Your task to perform on an android device: turn off location Image 0: 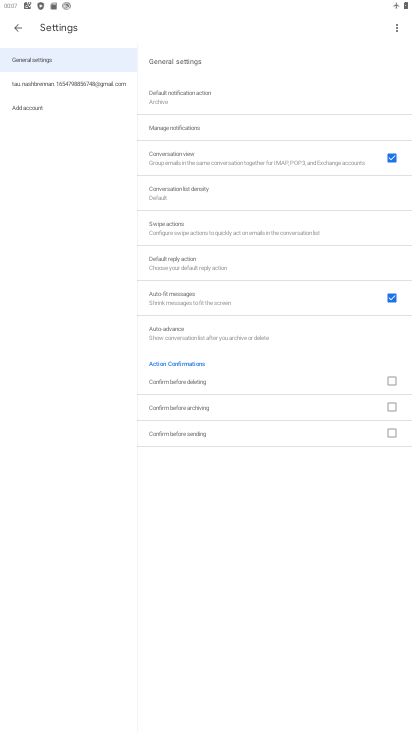
Step 0: press home button
Your task to perform on an android device: turn off location Image 1: 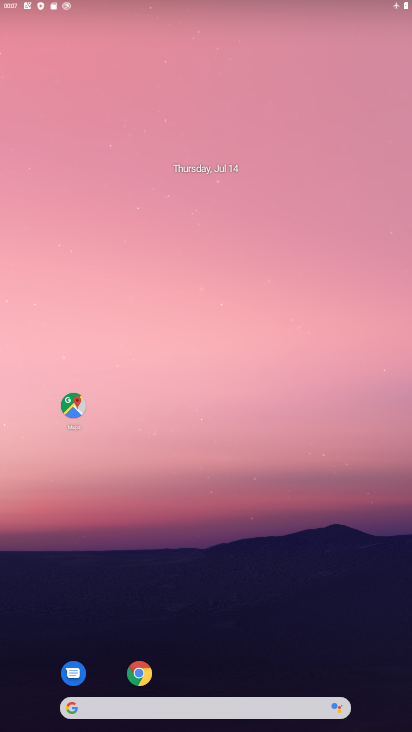
Step 1: drag from (212, 631) to (211, 103)
Your task to perform on an android device: turn off location Image 2: 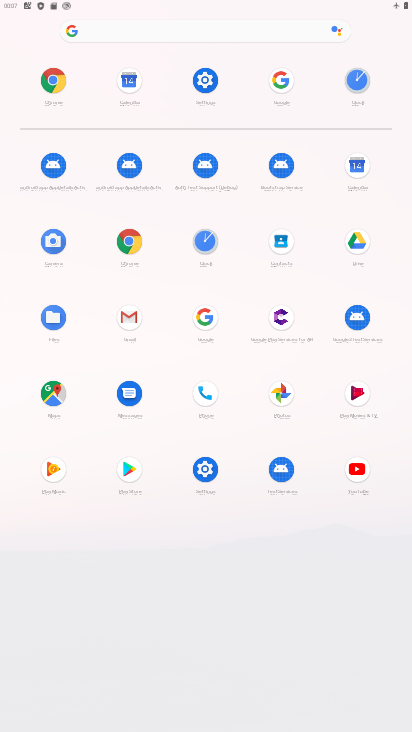
Step 2: click (217, 74)
Your task to perform on an android device: turn off location Image 3: 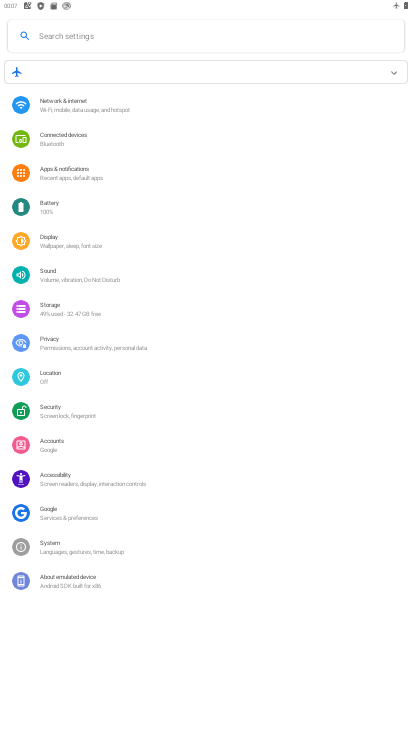
Step 3: click (67, 384)
Your task to perform on an android device: turn off location Image 4: 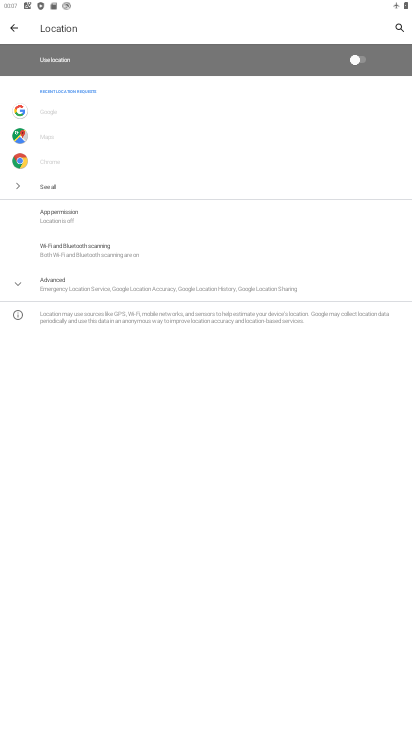
Step 4: task complete